Your task to perform on an android device: set default search engine in the chrome app Image 0: 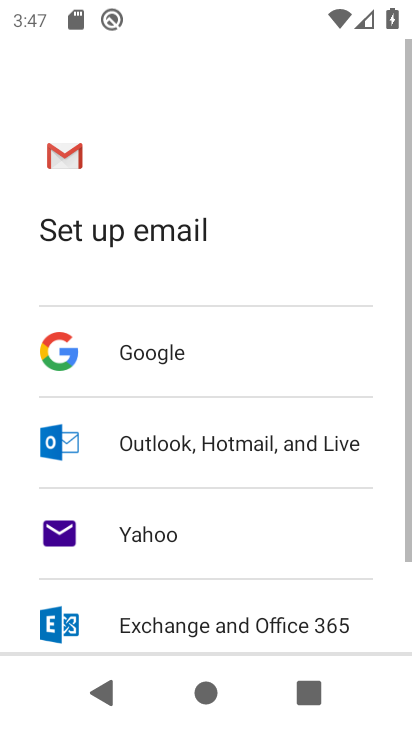
Step 0: press home button
Your task to perform on an android device: set default search engine in the chrome app Image 1: 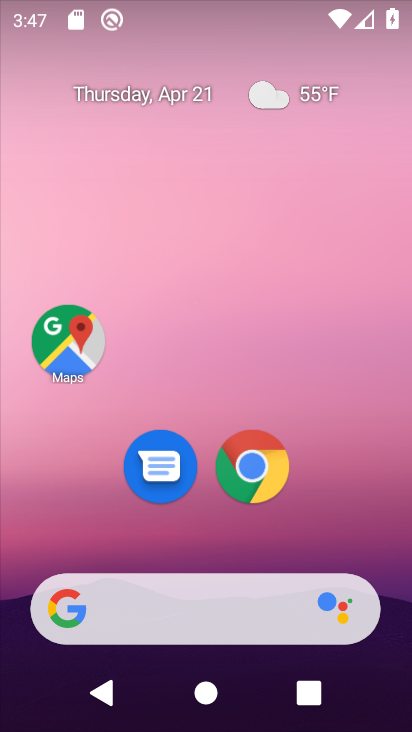
Step 1: click (249, 451)
Your task to perform on an android device: set default search engine in the chrome app Image 2: 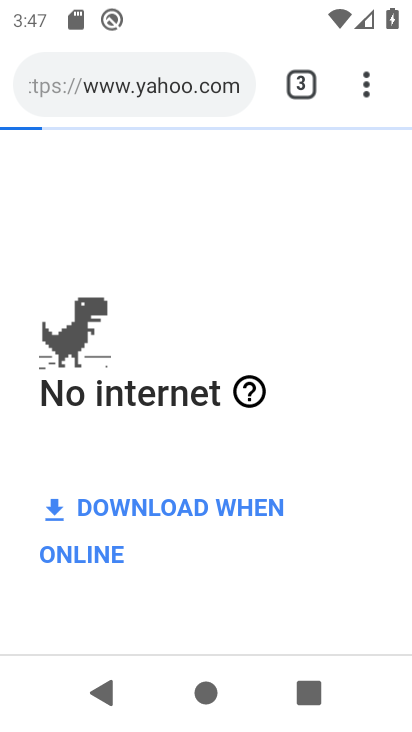
Step 2: click (366, 82)
Your task to perform on an android device: set default search engine in the chrome app Image 3: 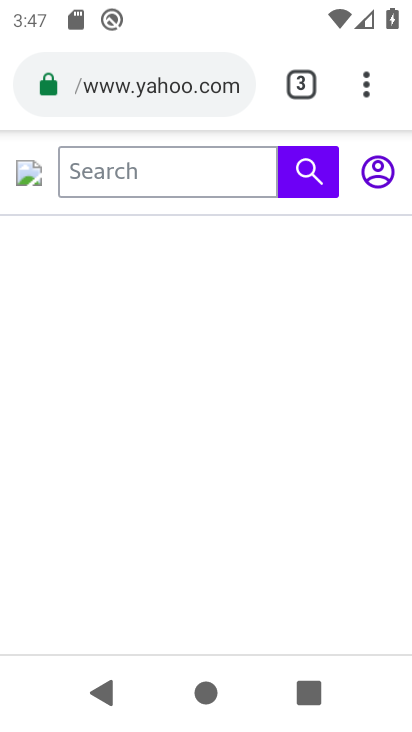
Step 3: click (357, 89)
Your task to perform on an android device: set default search engine in the chrome app Image 4: 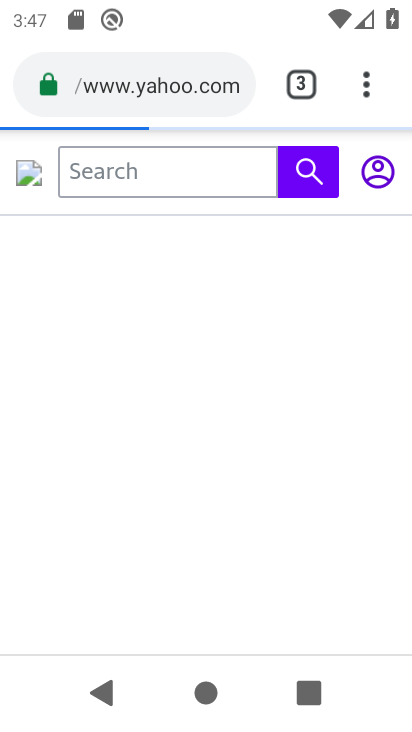
Step 4: click (357, 89)
Your task to perform on an android device: set default search engine in the chrome app Image 5: 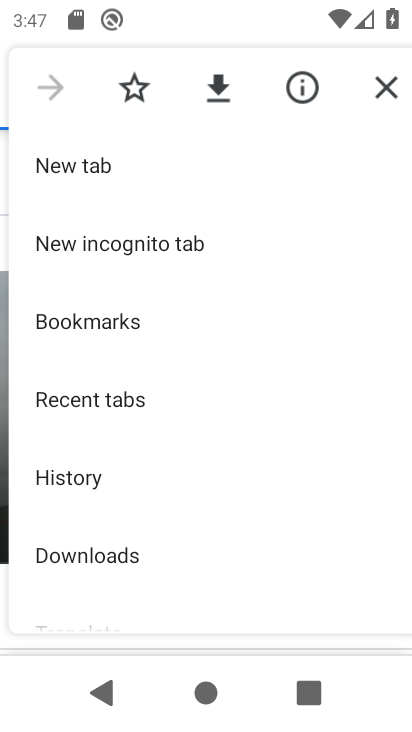
Step 5: drag from (202, 381) to (237, 91)
Your task to perform on an android device: set default search engine in the chrome app Image 6: 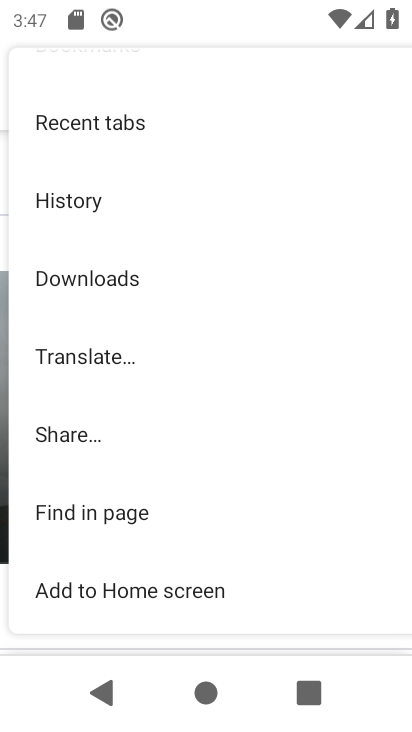
Step 6: drag from (250, 366) to (254, 147)
Your task to perform on an android device: set default search engine in the chrome app Image 7: 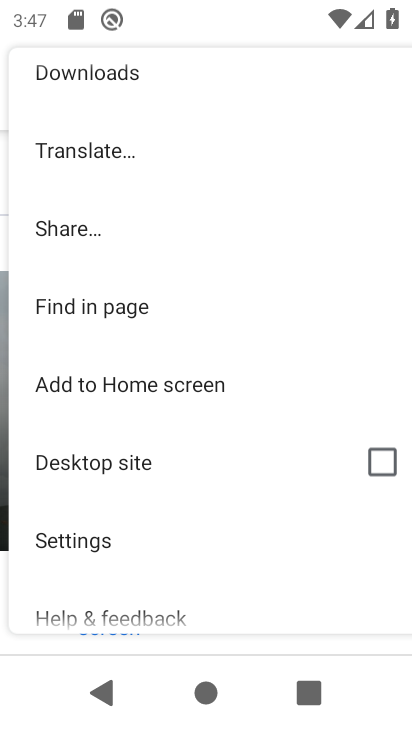
Step 7: click (146, 548)
Your task to perform on an android device: set default search engine in the chrome app Image 8: 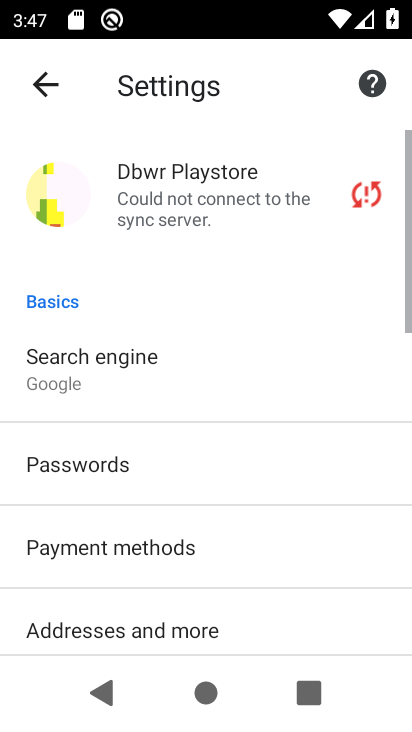
Step 8: click (152, 345)
Your task to perform on an android device: set default search engine in the chrome app Image 9: 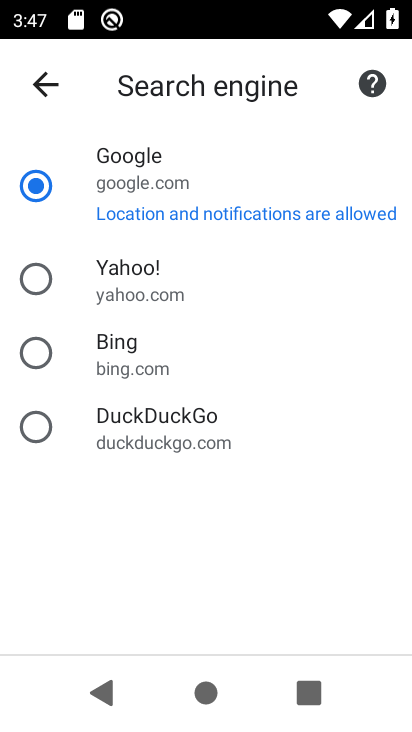
Step 9: task complete